Your task to perform on an android device: What is the recent news? Image 0: 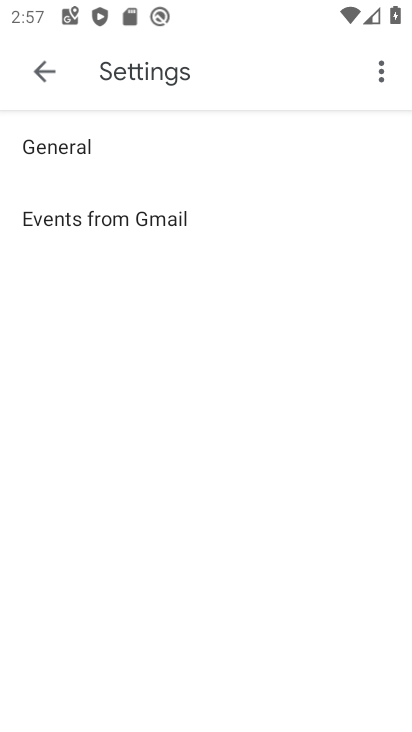
Step 0: press back button
Your task to perform on an android device: What is the recent news? Image 1: 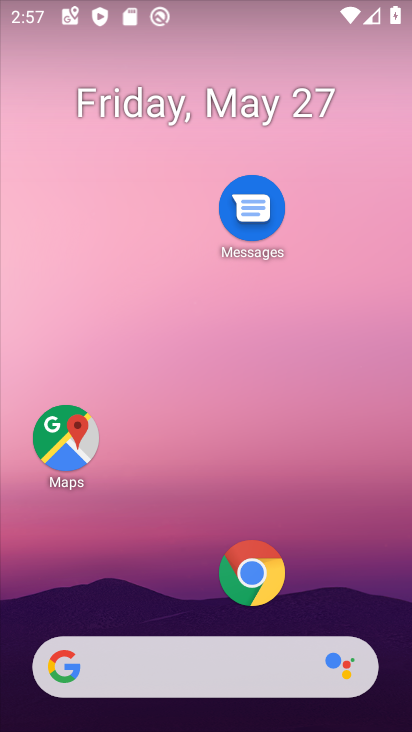
Step 1: drag from (127, 591) to (138, 154)
Your task to perform on an android device: What is the recent news? Image 2: 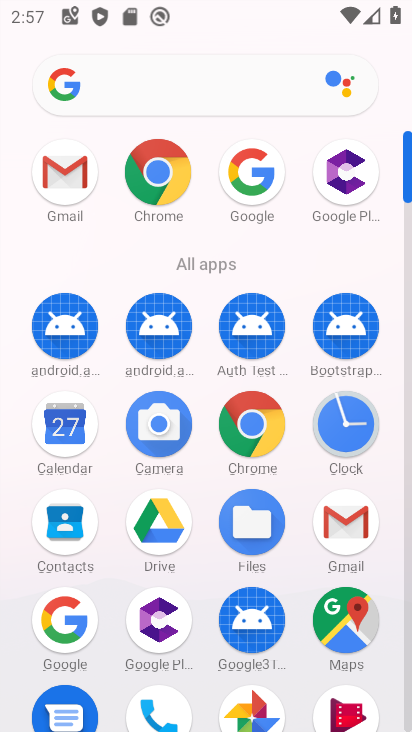
Step 2: click (70, 635)
Your task to perform on an android device: What is the recent news? Image 3: 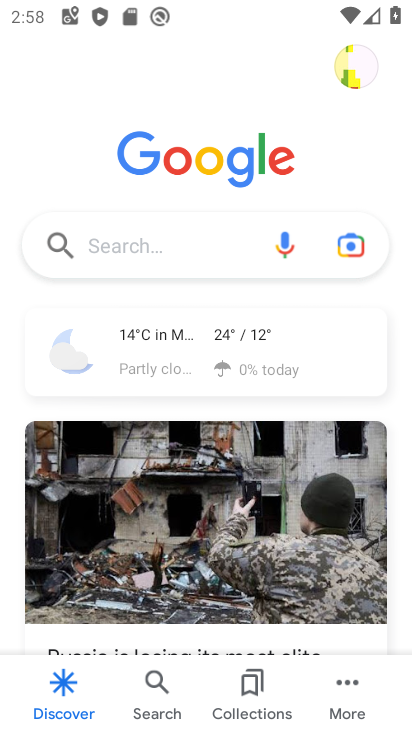
Step 3: task complete